Your task to perform on an android device: Open my contact list Image 0: 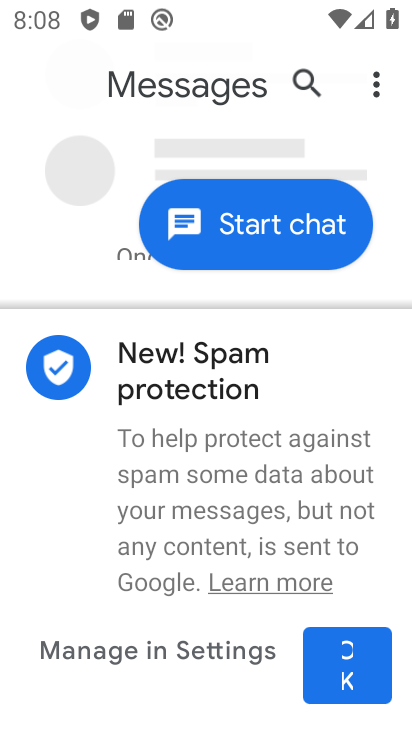
Step 0: press back button
Your task to perform on an android device: Open my contact list Image 1: 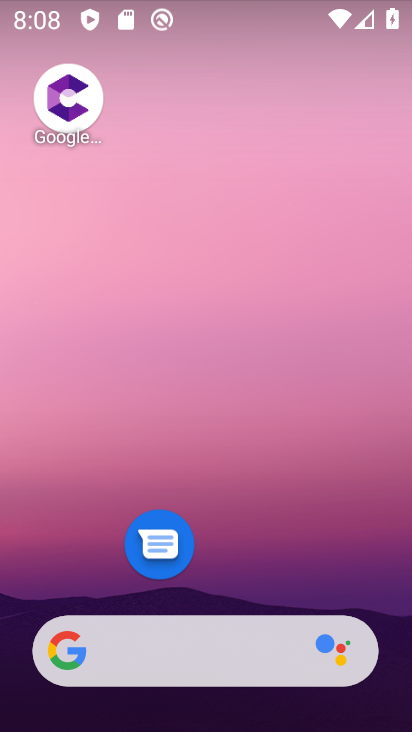
Step 1: drag from (170, 431) to (189, 32)
Your task to perform on an android device: Open my contact list Image 2: 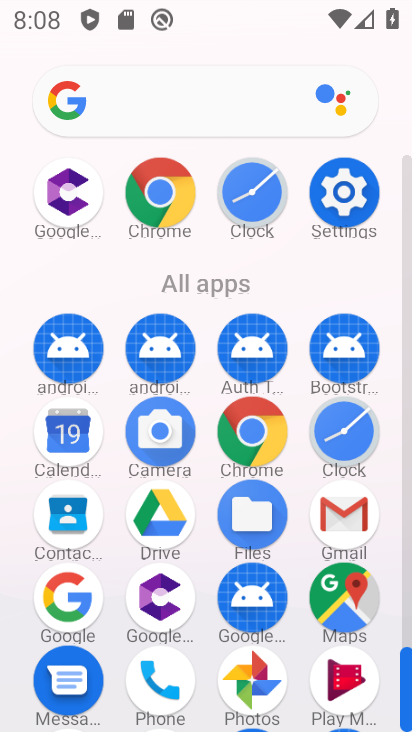
Step 2: click (70, 523)
Your task to perform on an android device: Open my contact list Image 3: 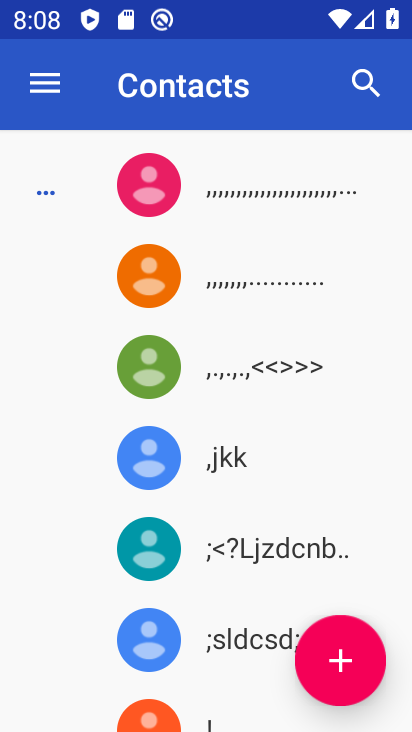
Step 3: click (336, 659)
Your task to perform on an android device: Open my contact list Image 4: 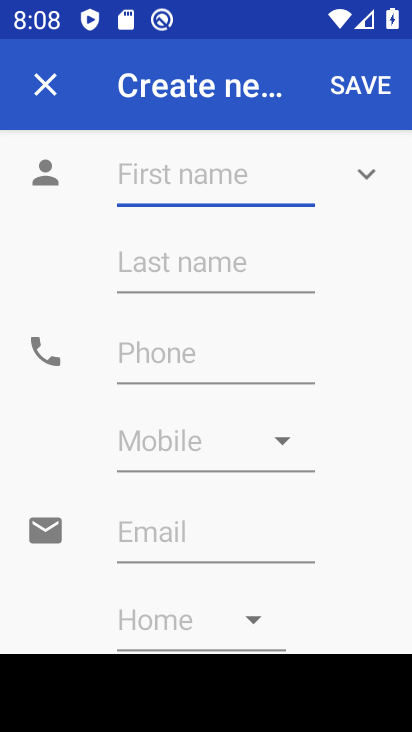
Step 4: click (172, 166)
Your task to perform on an android device: Open my contact list Image 5: 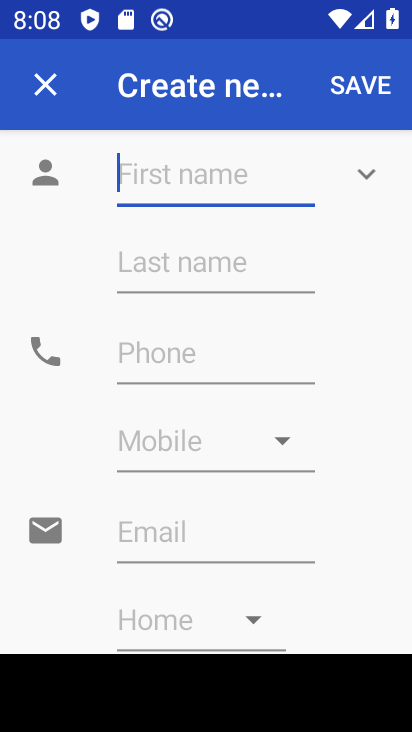
Step 5: type "fbbb"
Your task to perform on an android device: Open my contact list Image 6: 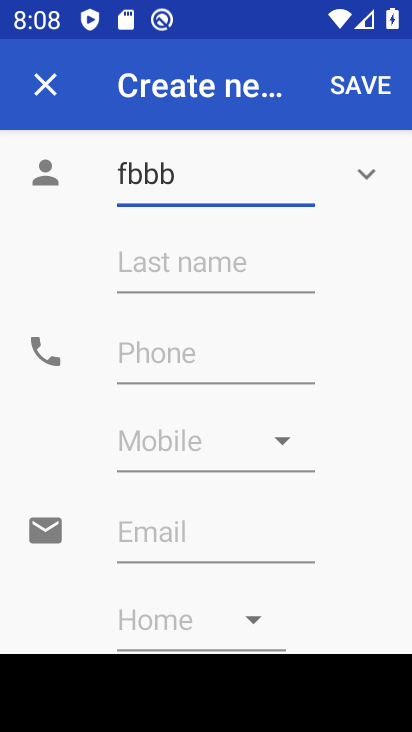
Step 6: click (197, 353)
Your task to perform on an android device: Open my contact list Image 7: 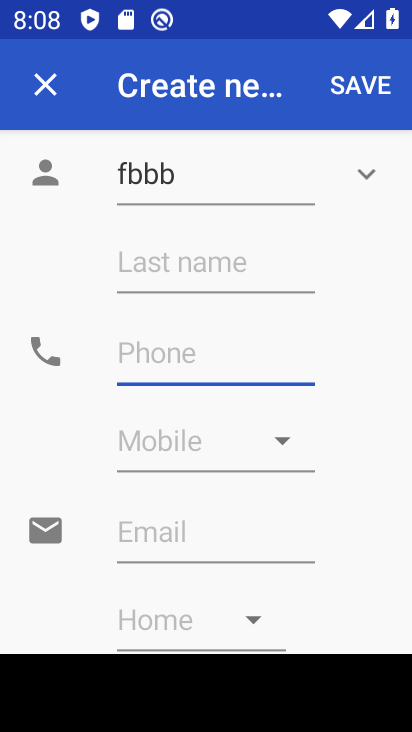
Step 7: type "56656"
Your task to perform on an android device: Open my contact list Image 8: 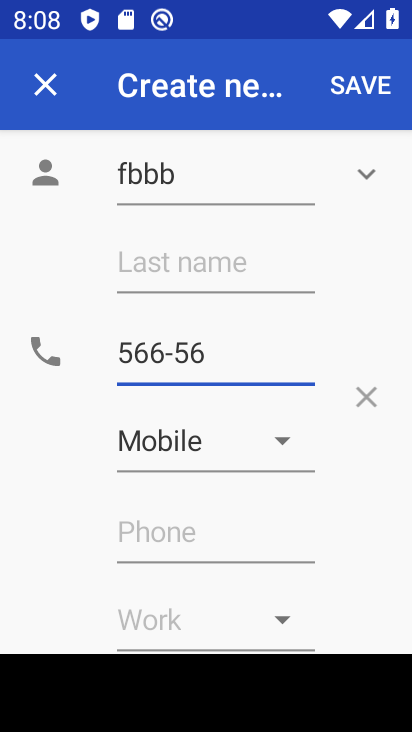
Step 8: click (368, 69)
Your task to perform on an android device: Open my contact list Image 9: 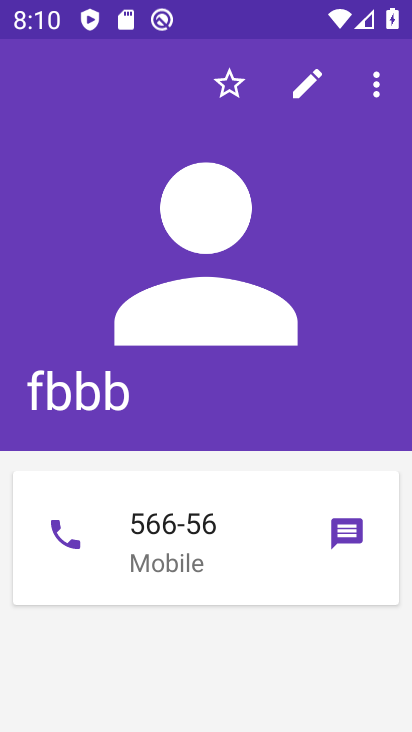
Step 9: task complete